Your task to perform on an android device: turn notification dots off Image 0: 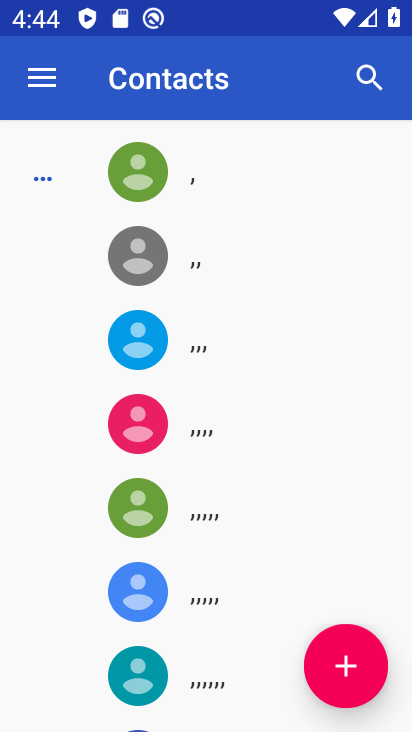
Step 0: press home button
Your task to perform on an android device: turn notification dots off Image 1: 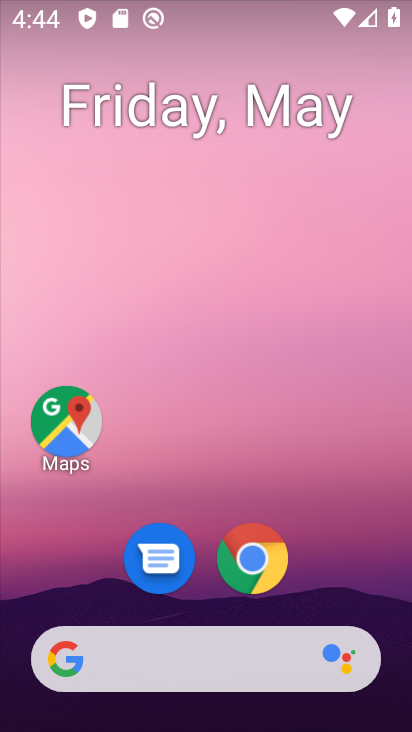
Step 1: drag from (363, 604) to (262, 205)
Your task to perform on an android device: turn notification dots off Image 2: 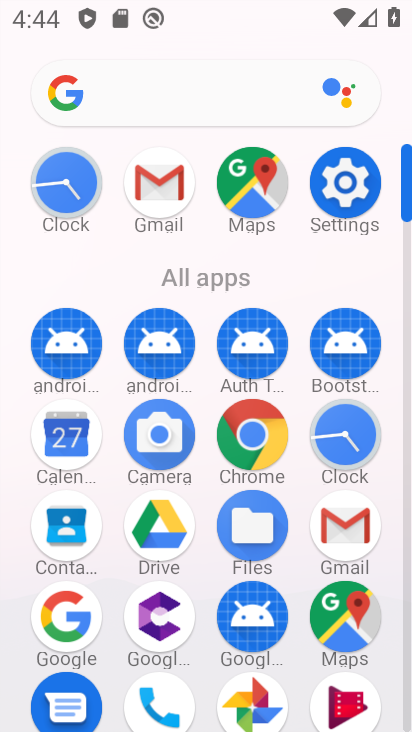
Step 2: click (359, 189)
Your task to perform on an android device: turn notification dots off Image 3: 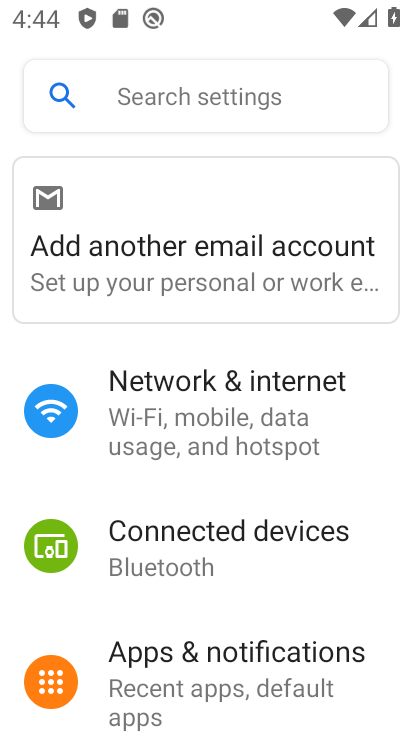
Step 3: drag from (296, 665) to (273, 385)
Your task to perform on an android device: turn notification dots off Image 4: 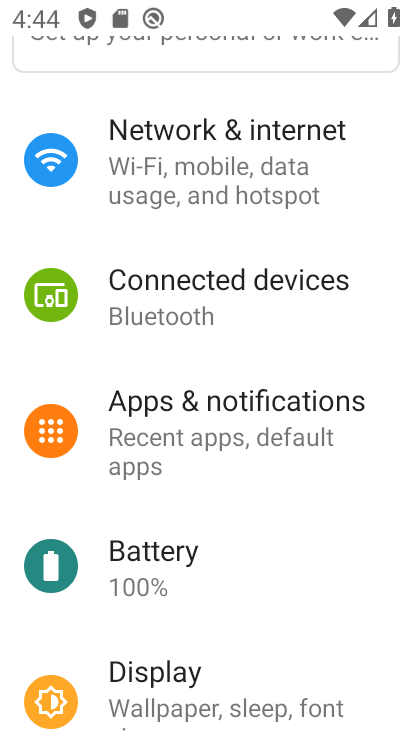
Step 4: click (282, 412)
Your task to perform on an android device: turn notification dots off Image 5: 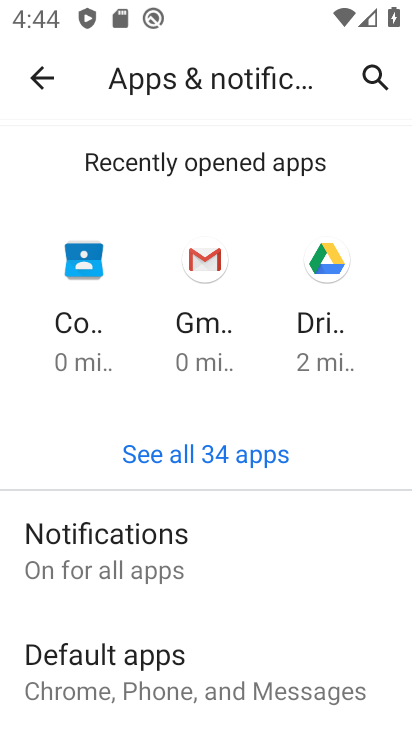
Step 5: click (205, 558)
Your task to perform on an android device: turn notification dots off Image 6: 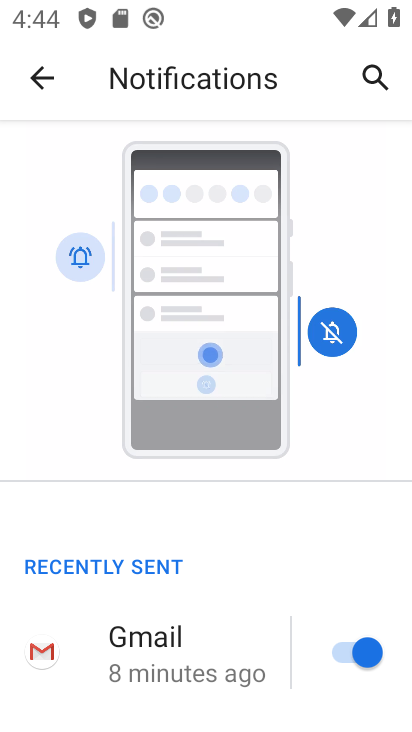
Step 6: drag from (231, 657) to (158, 47)
Your task to perform on an android device: turn notification dots off Image 7: 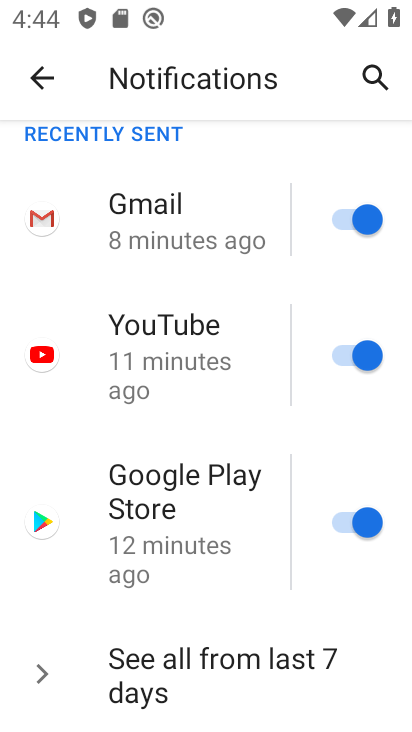
Step 7: drag from (212, 613) to (177, 166)
Your task to perform on an android device: turn notification dots off Image 8: 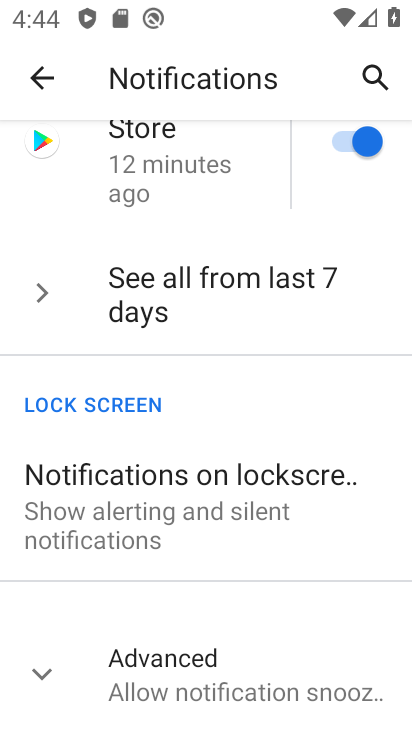
Step 8: click (273, 677)
Your task to perform on an android device: turn notification dots off Image 9: 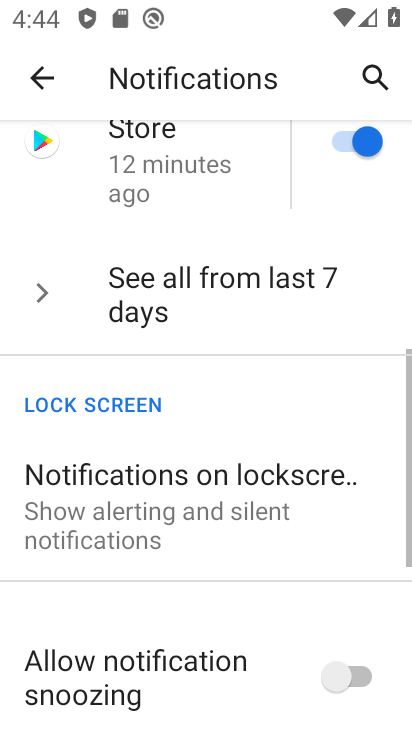
Step 9: drag from (274, 600) to (239, 137)
Your task to perform on an android device: turn notification dots off Image 10: 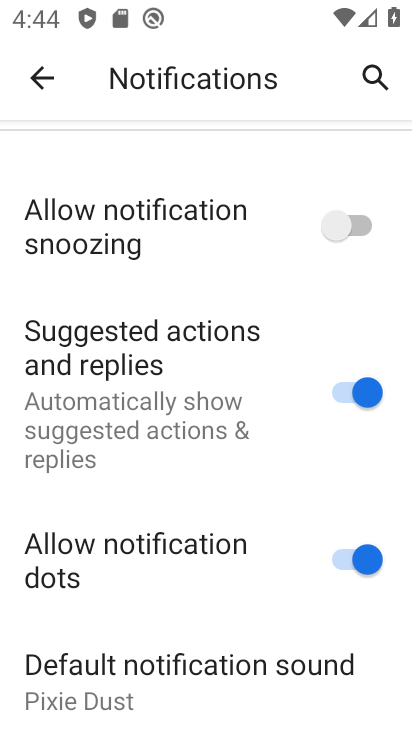
Step 10: click (354, 558)
Your task to perform on an android device: turn notification dots off Image 11: 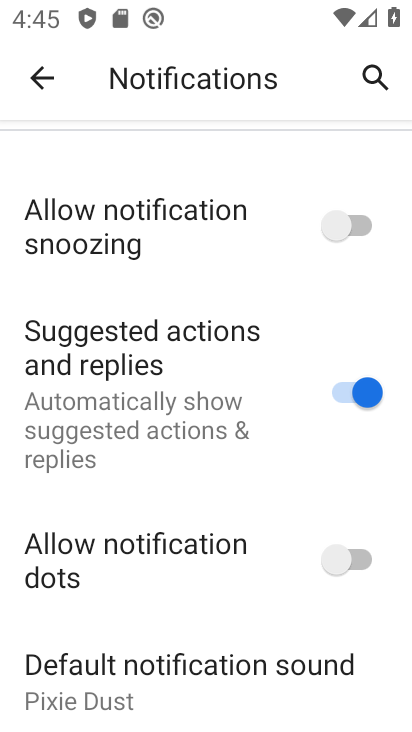
Step 11: task complete